Your task to perform on an android device: change the upload size in google photos Image 0: 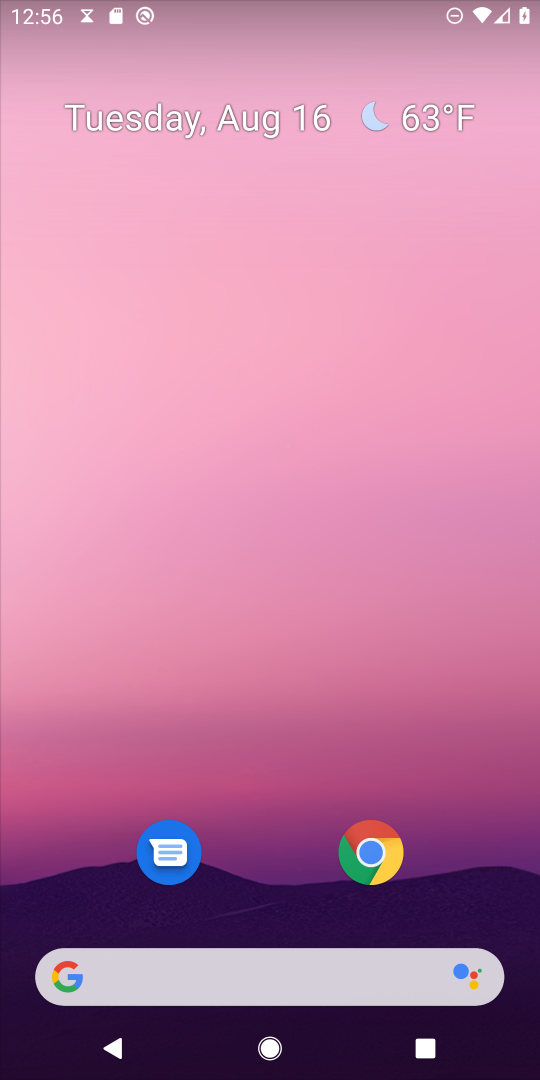
Step 0: drag from (293, 928) to (386, 3)
Your task to perform on an android device: change the upload size in google photos Image 1: 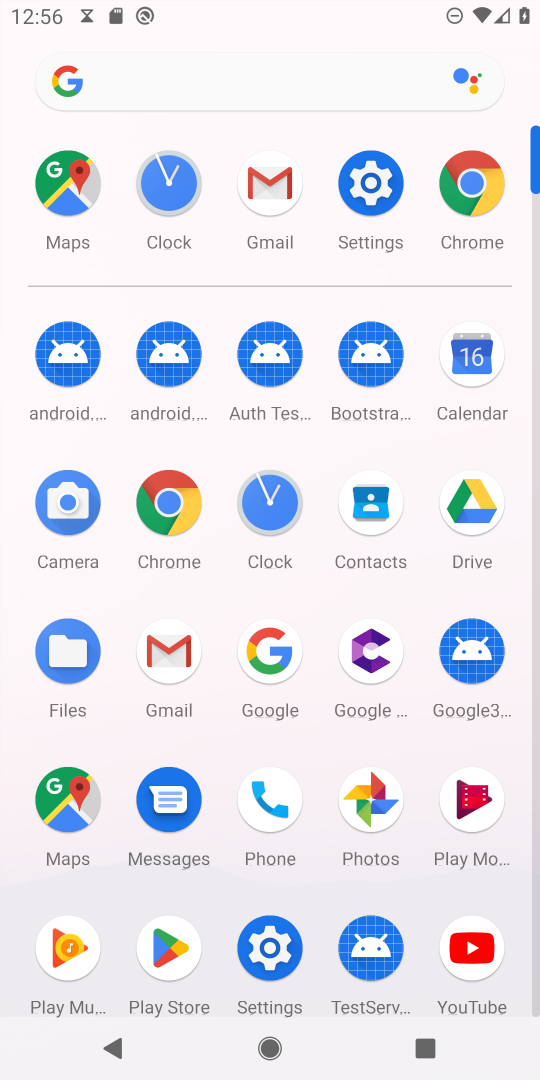
Step 1: click (364, 797)
Your task to perform on an android device: change the upload size in google photos Image 2: 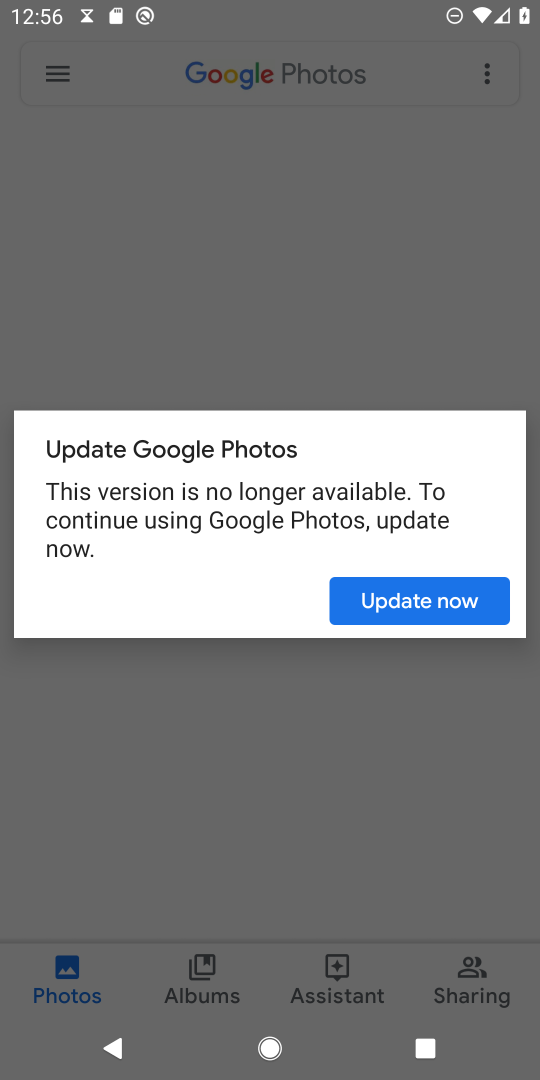
Step 2: click (412, 596)
Your task to perform on an android device: change the upload size in google photos Image 3: 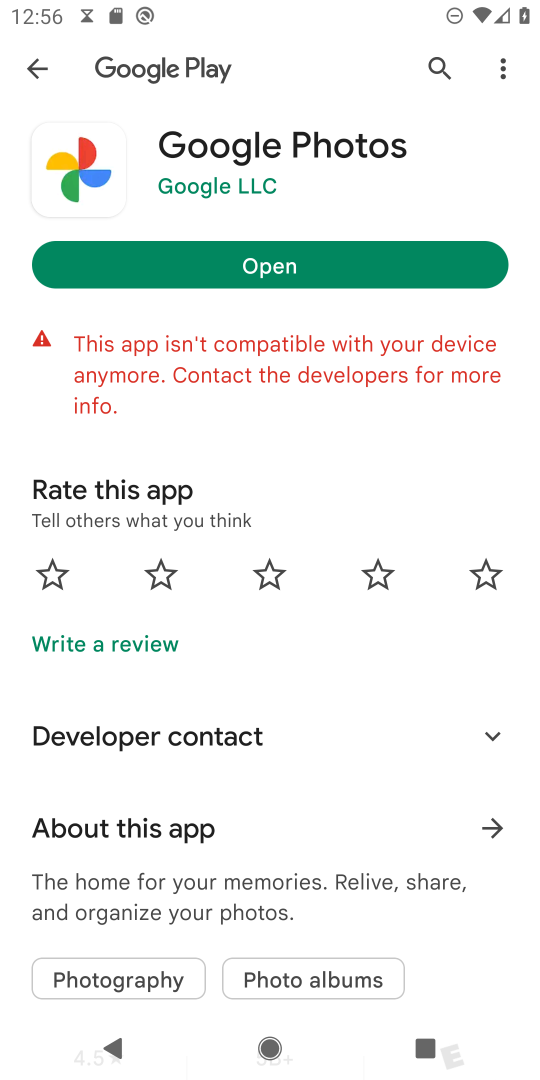
Step 3: click (300, 252)
Your task to perform on an android device: change the upload size in google photos Image 4: 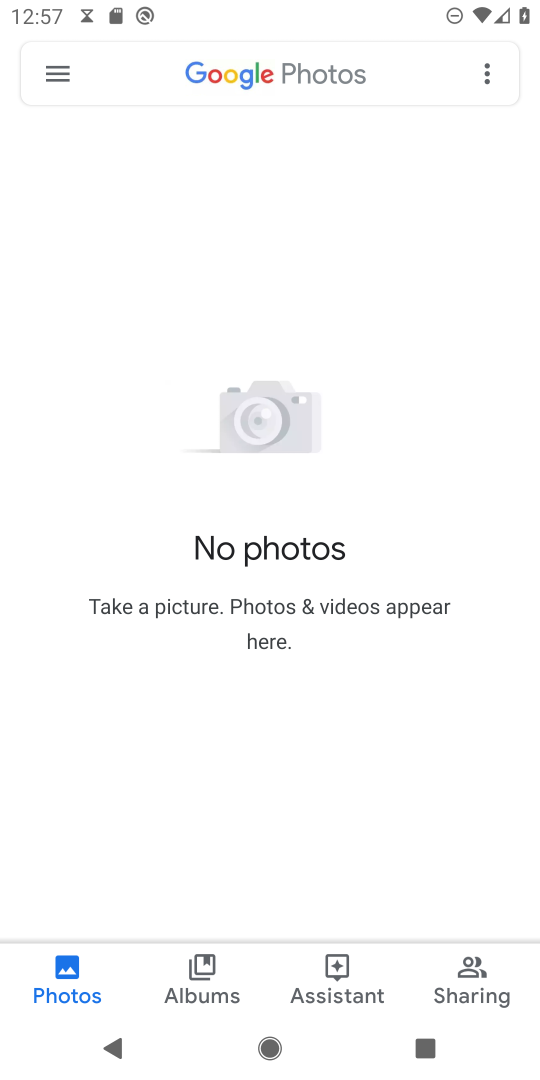
Step 4: click (39, 67)
Your task to perform on an android device: change the upload size in google photos Image 5: 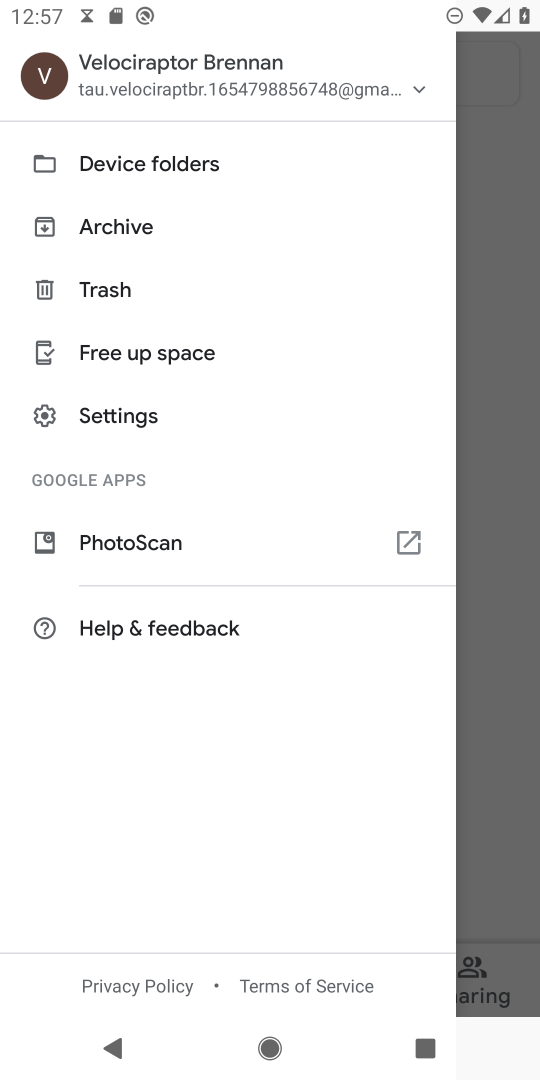
Step 5: click (151, 425)
Your task to perform on an android device: change the upload size in google photos Image 6: 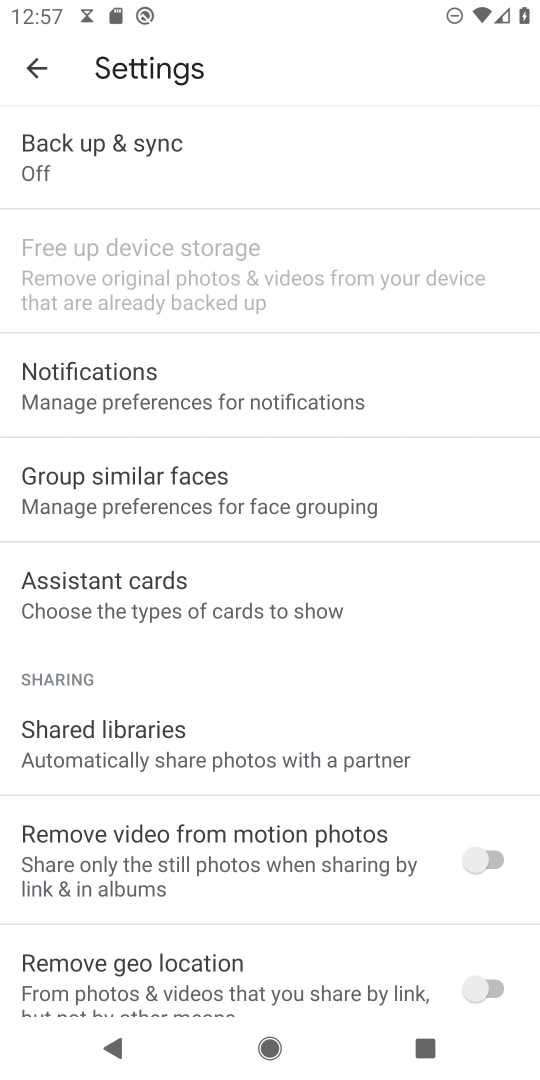
Step 6: click (219, 148)
Your task to perform on an android device: change the upload size in google photos Image 7: 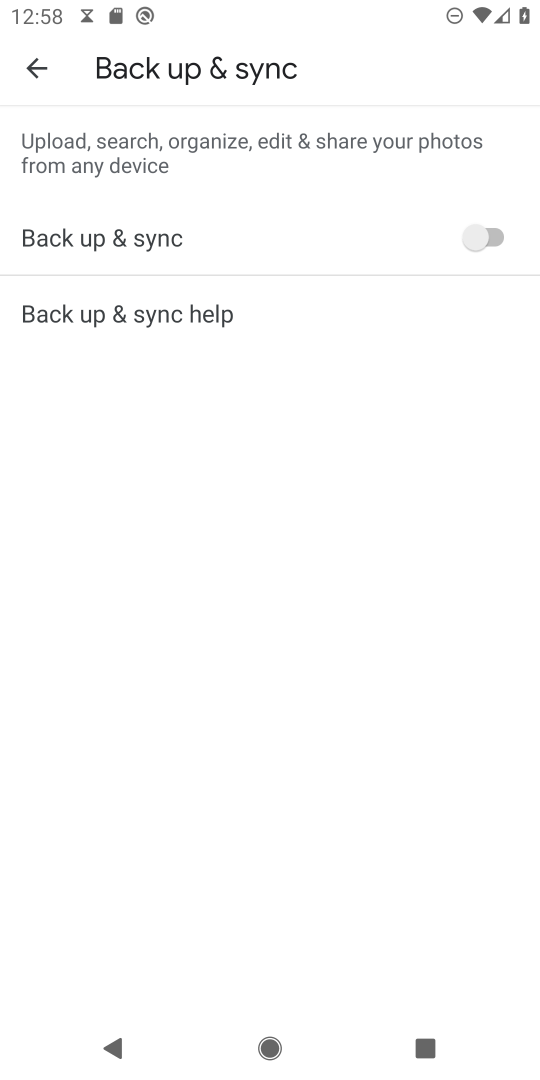
Step 7: click (465, 235)
Your task to perform on an android device: change the upload size in google photos Image 8: 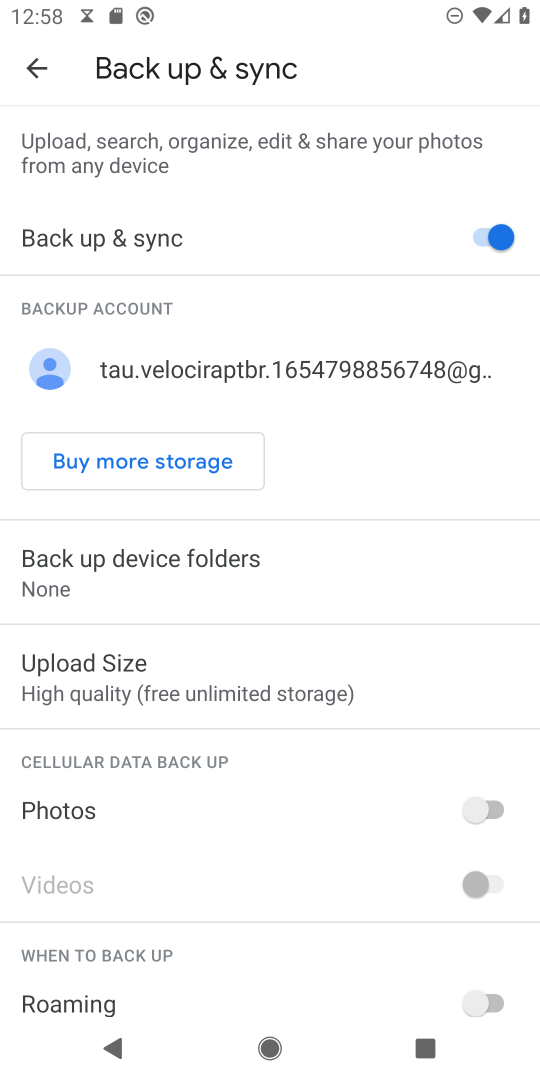
Step 8: click (152, 673)
Your task to perform on an android device: change the upload size in google photos Image 9: 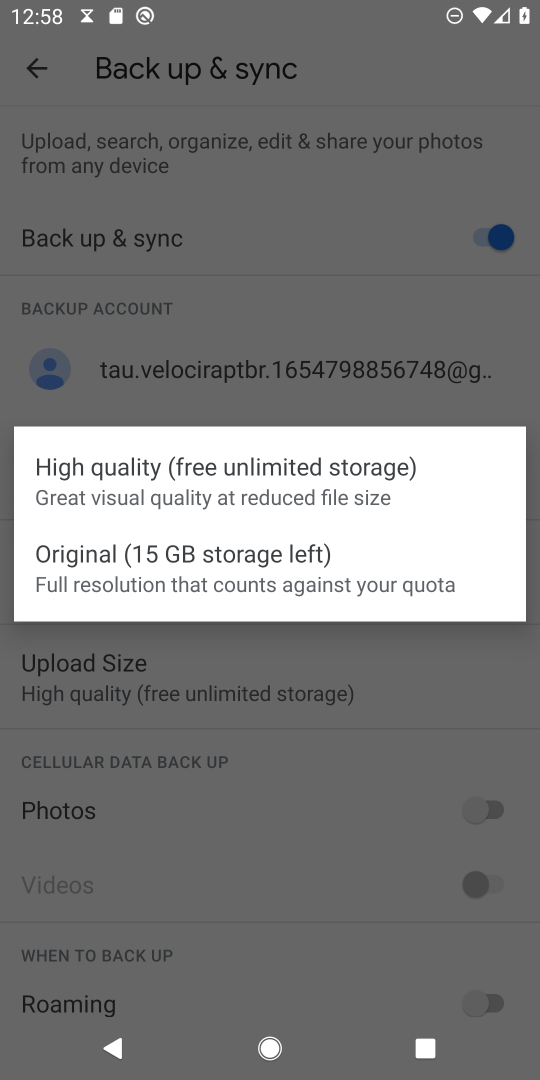
Step 9: click (144, 571)
Your task to perform on an android device: change the upload size in google photos Image 10: 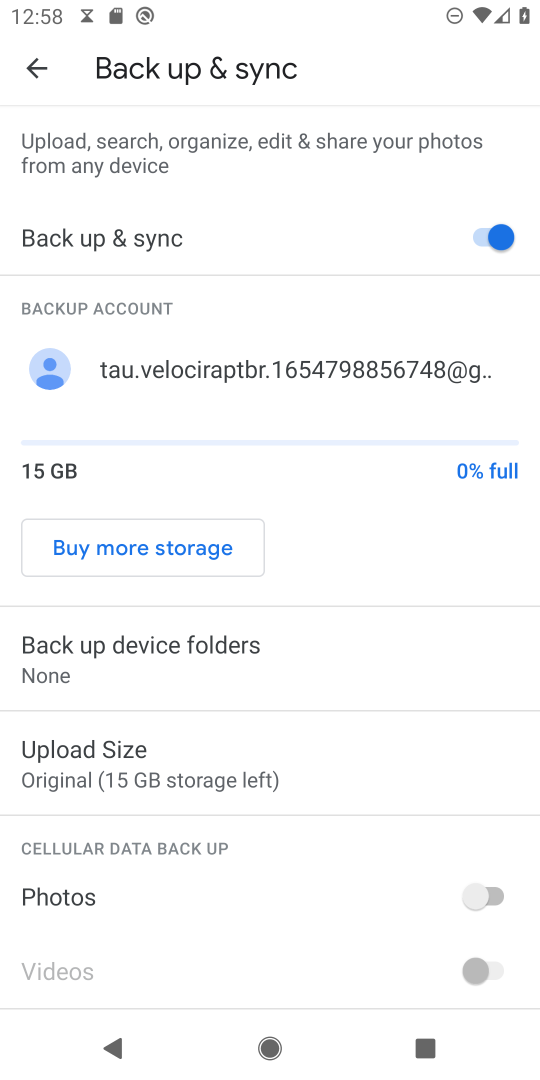
Step 10: task complete